Your task to perform on an android device: change the upload size in google photos Image 0: 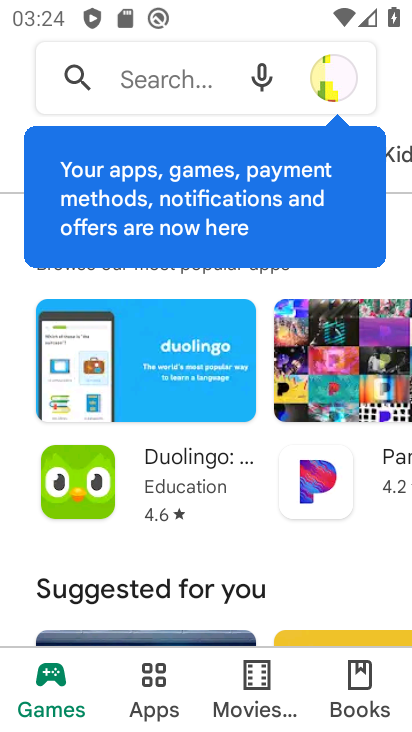
Step 0: drag from (264, 472) to (256, 219)
Your task to perform on an android device: change the upload size in google photos Image 1: 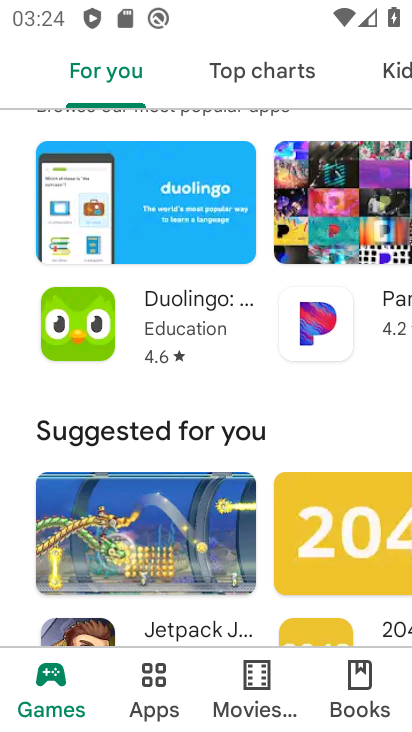
Step 1: press home button
Your task to perform on an android device: change the upload size in google photos Image 2: 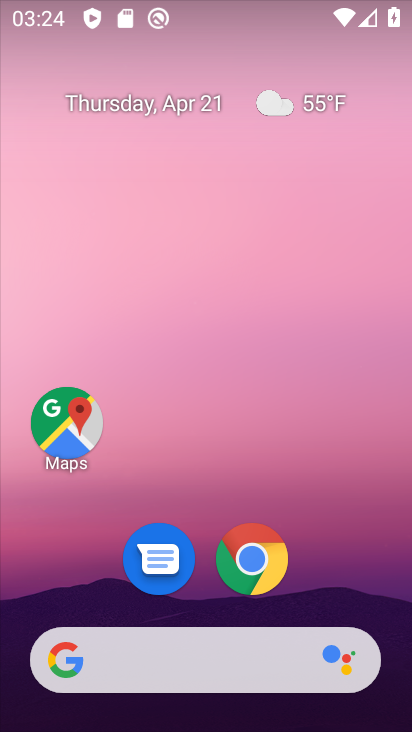
Step 2: drag from (303, 507) to (242, 15)
Your task to perform on an android device: change the upload size in google photos Image 3: 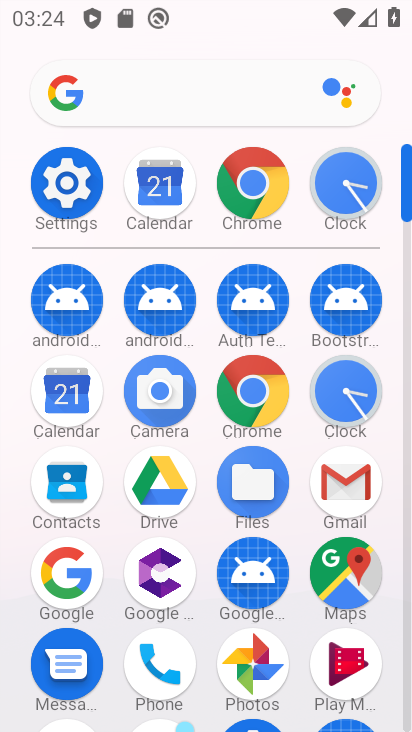
Step 3: click (265, 661)
Your task to perform on an android device: change the upload size in google photos Image 4: 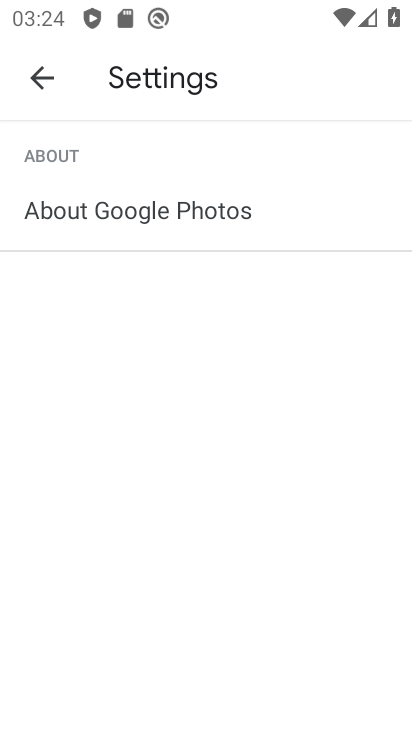
Step 4: click (35, 76)
Your task to perform on an android device: change the upload size in google photos Image 5: 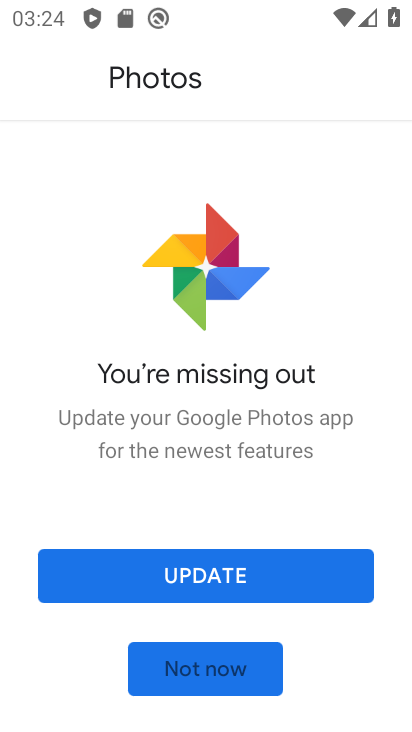
Step 5: click (198, 578)
Your task to perform on an android device: change the upload size in google photos Image 6: 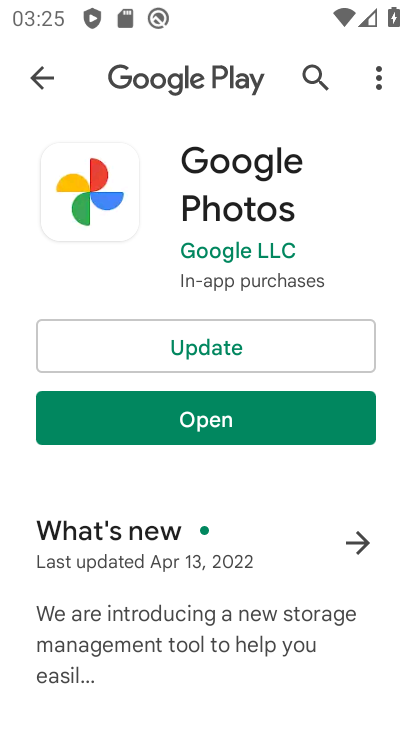
Step 6: click (267, 409)
Your task to perform on an android device: change the upload size in google photos Image 7: 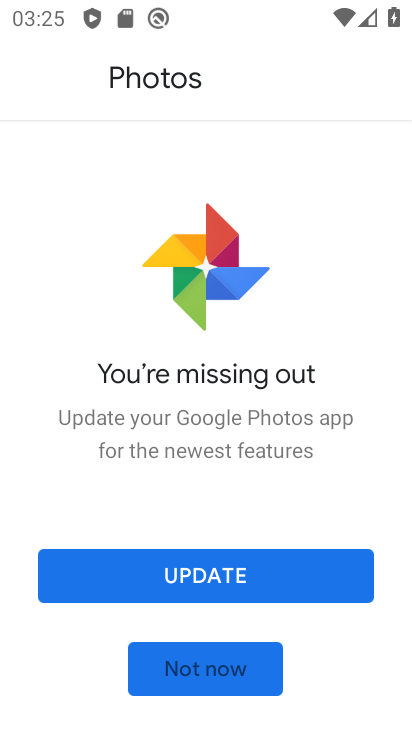
Step 7: click (215, 676)
Your task to perform on an android device: change the upload size in google photos Image 8: 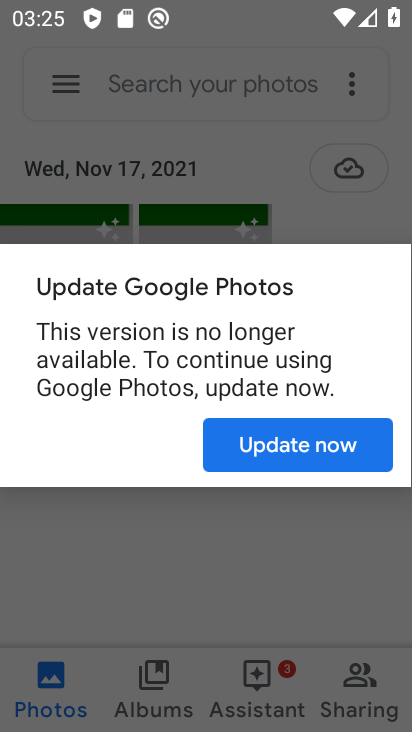
Step 8: click (181, 579)
Your task to perform on an android device: change the upload size in google photos Image 9: 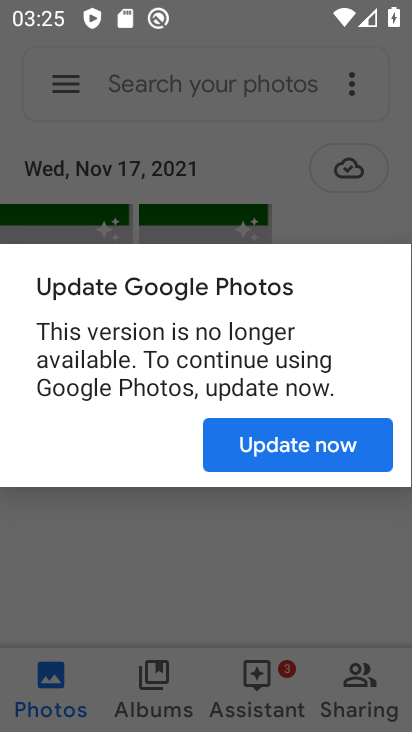
Step 9: click (272, 463)
Your task to perform on an android device: change the upload size in google photos Image 10: 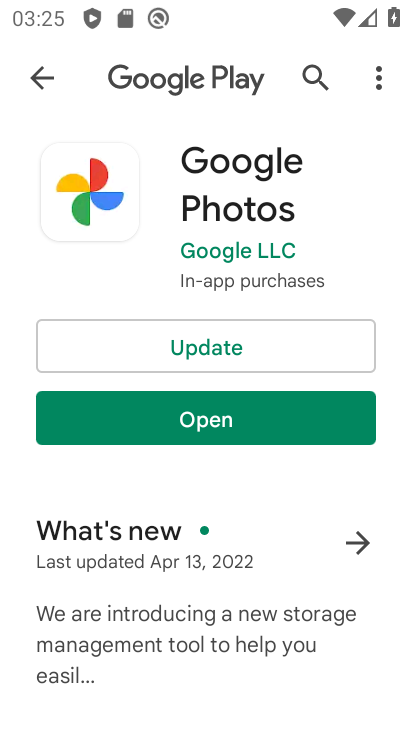
Step 10: click (183, 431)
Your task to perform on an android device: change the upload size in google photos Image 11: 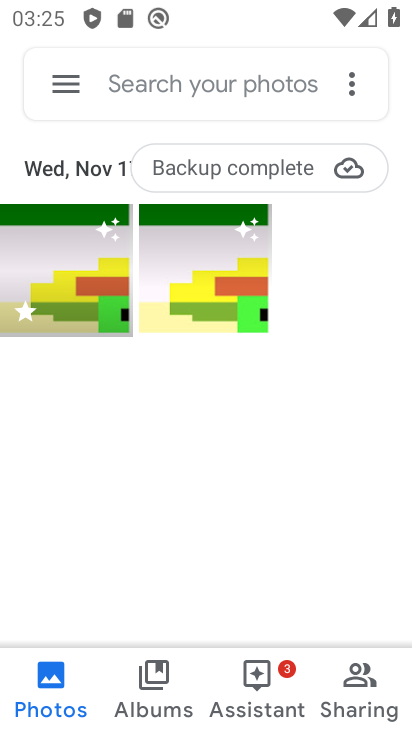
Step 11: click (54, 91)
Your task to perform on an android device: change the upload size in google photos Image 12: 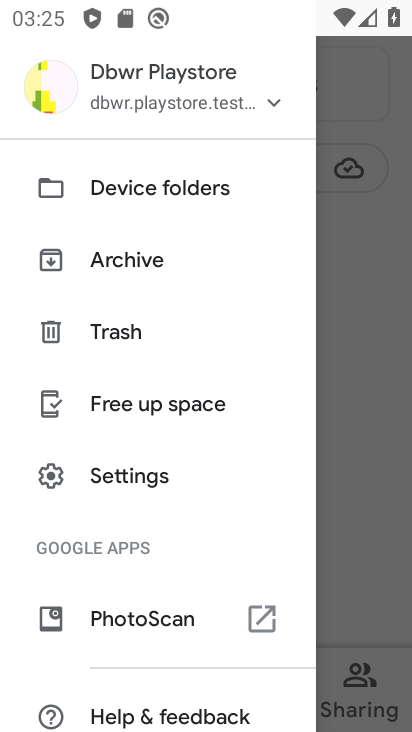
Step 12: click (131, 477)
Your task to perform on an android device: change the upload size in google photos Image 13: 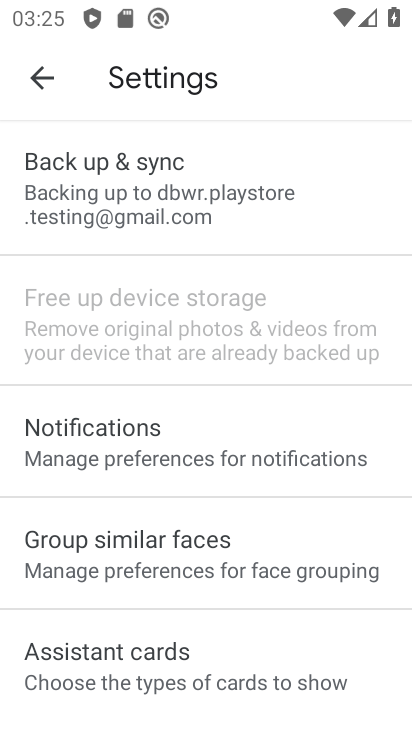
Step 13: drag from (288, 640) to (221, 234)
Your task to perform on an android device: change the upload size in google photos Image 14: 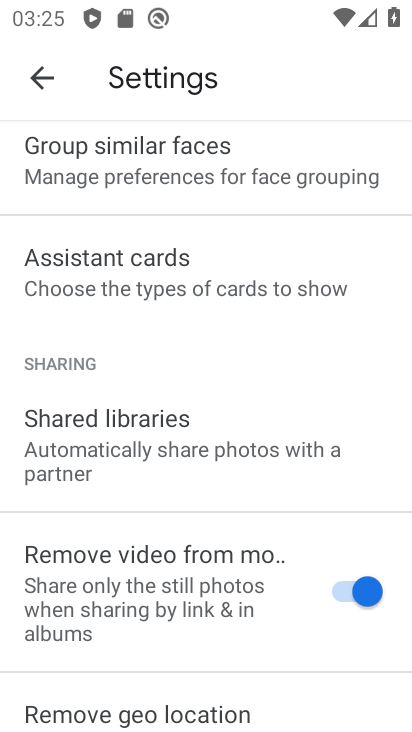
Step 14: drag from (214, 184) to (134, 718)
Your task to perform on an android device: change the upload size in google photos Image 15: 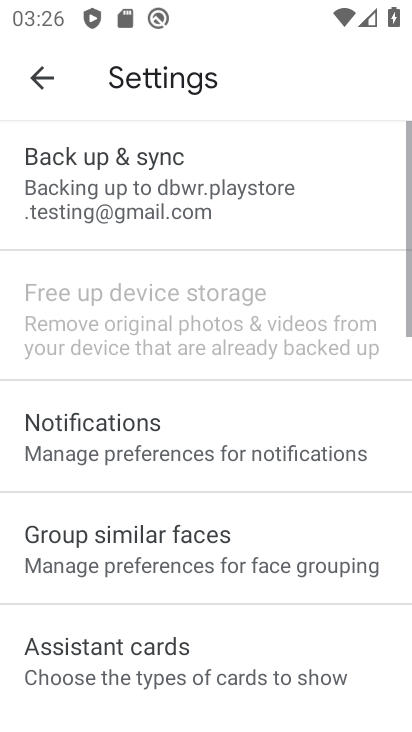
Step 15: click (119, 211)
Your task to perform on an android device: change the upload size in google photos Image 16: 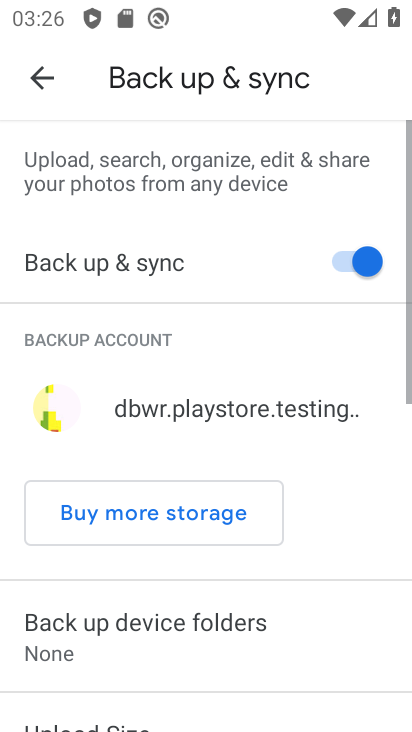
Step 16: drag from (160, 461) to (148, 2)
Your task to perform on an android device: change the upload size in google photos Image 17: 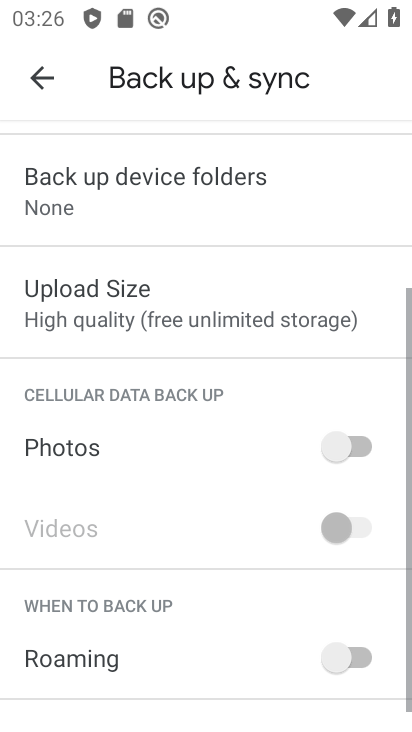
Step 17: click (167, 301)
Your task to perform on an android device: change the upload size in google photos Image 18: 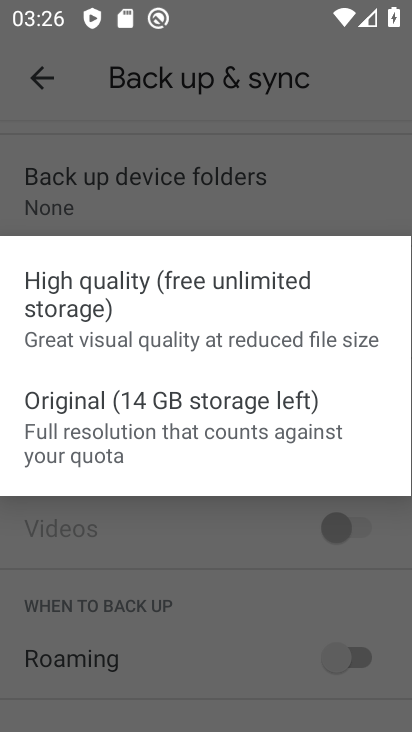
Step 18: click (111, 413)
Your task to perform on an android device: change the upload size in google photos Image 19: 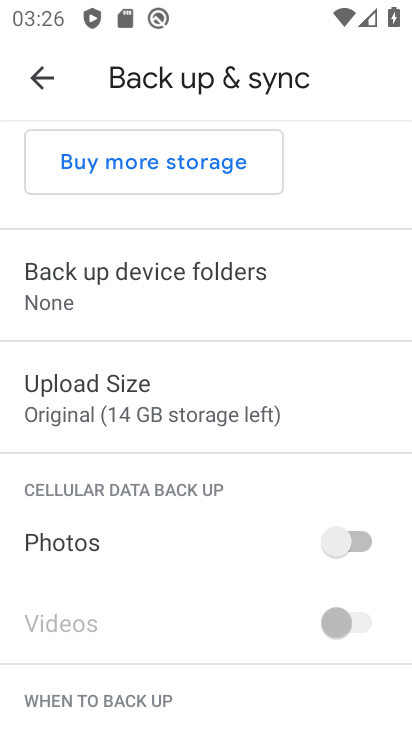
Step 19: click (232, 494)
Your task to perform on an android device: change the upload size in google photos Image 20: 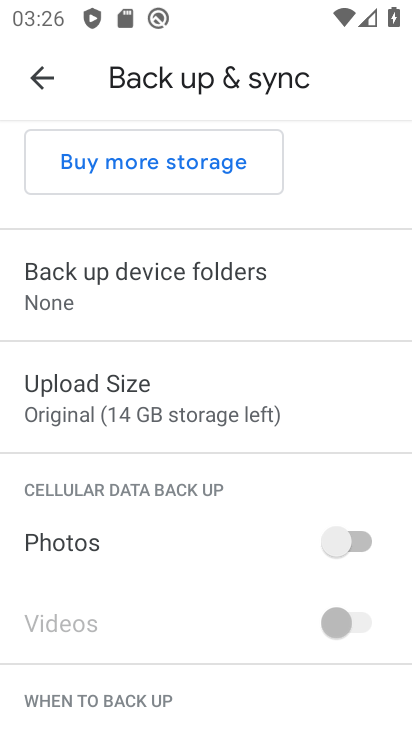
Step 20: task complete